Your task to perform on an android device: turn on showing notifications on the lock screen Image 0: 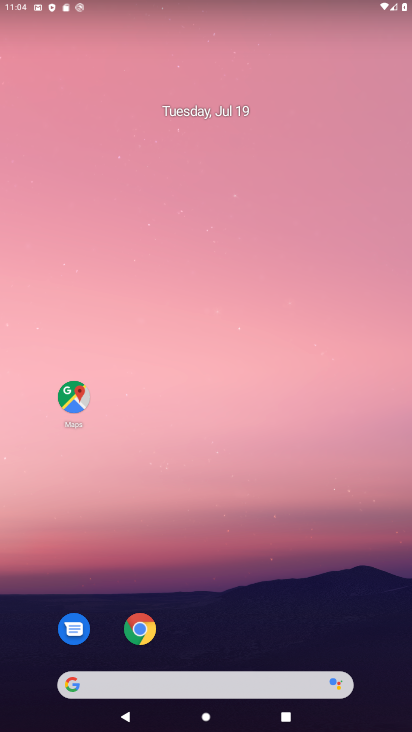
Step 0: drag from (265, 478) to (203, 94)
Your task to perform on an android device: turn on showing notifications on the lock screen Image 1: 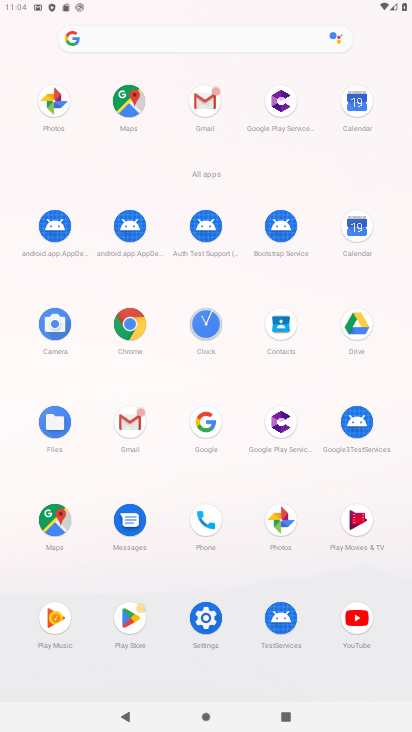
Step 1: click (204, 618)
Your task to perform on an android device: turn on showing notifications on the lock screen Image 2: 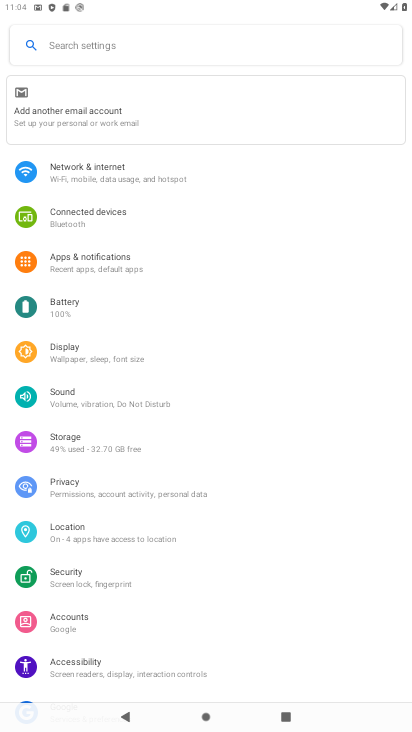
Step 2: click (123, 265)
Your task to perform on an android device: turn on showing notifications on the lock screen Image 3: 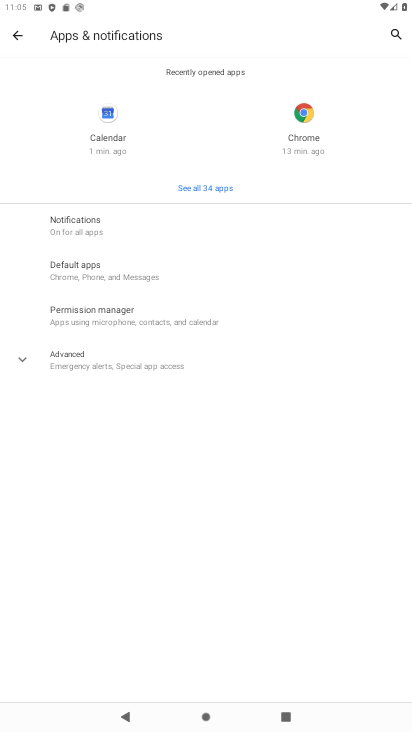
Step 3: click (82, 228)
Your task to perform on an android device: turn on showing notifications on the lock screen Image 4: 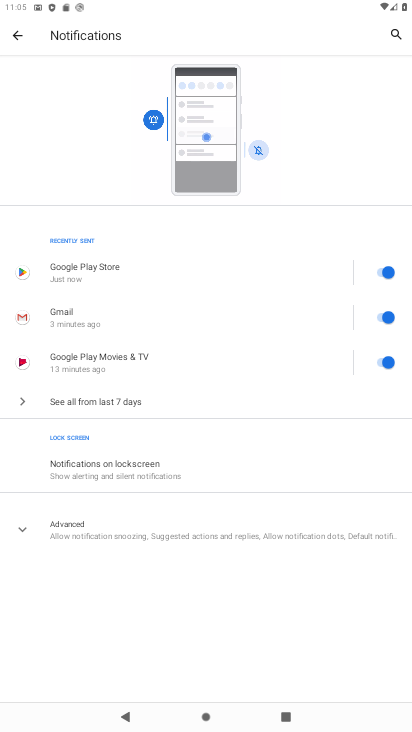
Step 4: click (110, 472)
Your task to perform on an android device: turn on showing notifications on the lock screen Image 5: 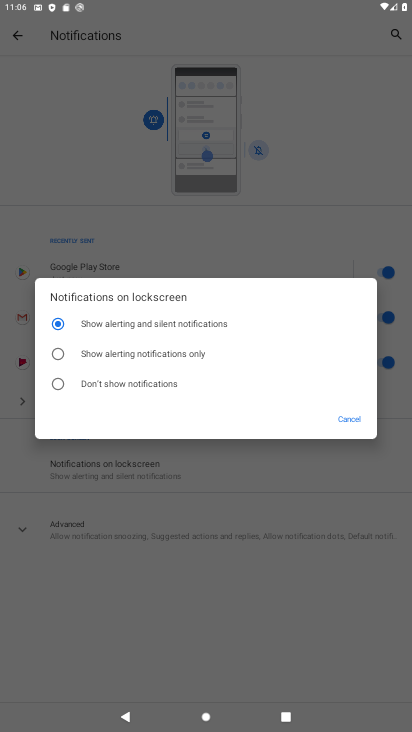
Step 5: click (90, 341)
Your task to perform on an android device: turn on showing notifications on the lock screen Image 6: 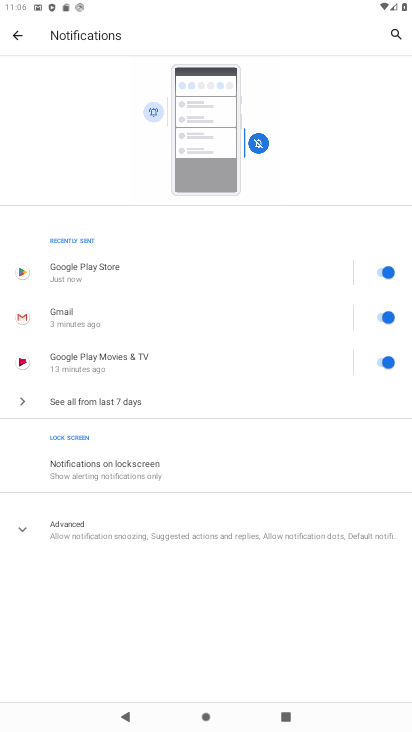
Step 6: task complete